Your task to perform on an android device: turn on showing notifications on the lock screen Image 0: 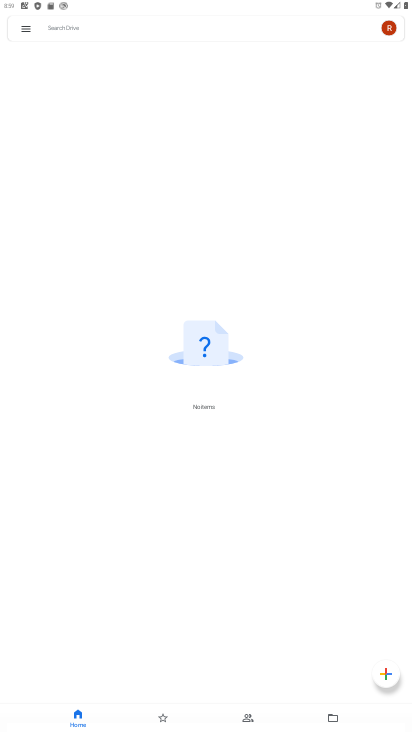
Step 0: press home button
Your task to perform on an android device: turn on showing notifications on the lock screen Image 1: 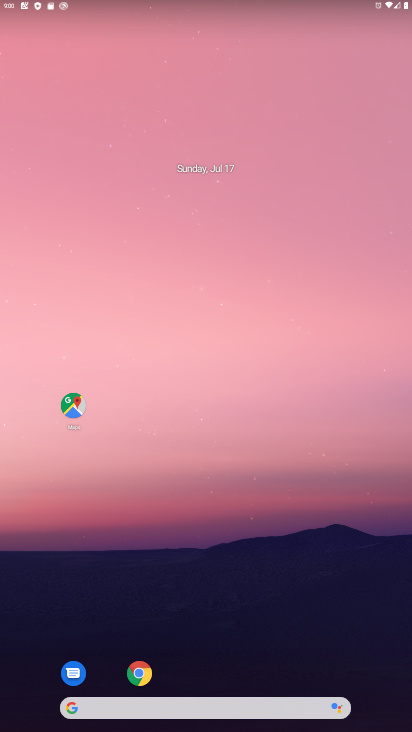
Step 1: drag from (317, 647) to (189, 167)
Your task to perform on an android device: turn on showing notifications on the lock screen Image 2: 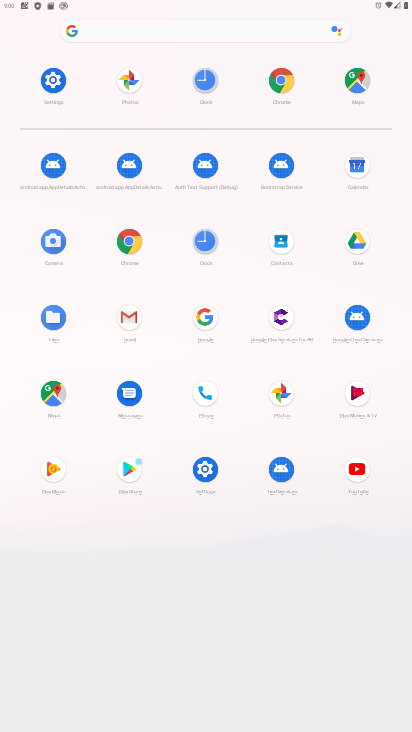
Step 2: click (53, 75)
Your task to perform on an android device: turn on showing notifications on the lock screen Image 3: 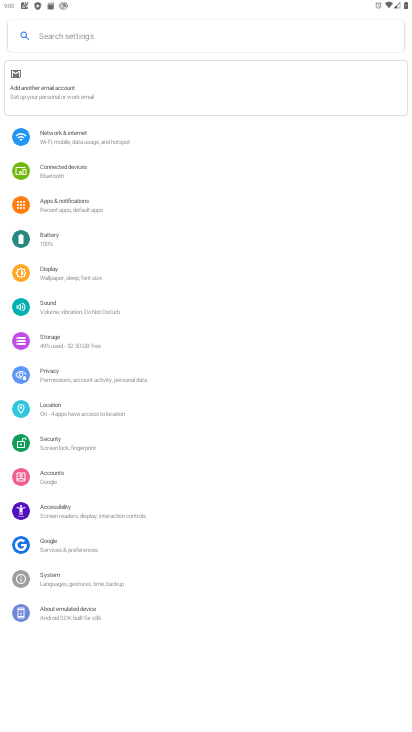
Step 3: click (89, 204)
Your task to perform on an android device: turn on showing notifications on the lock screen Image 4: 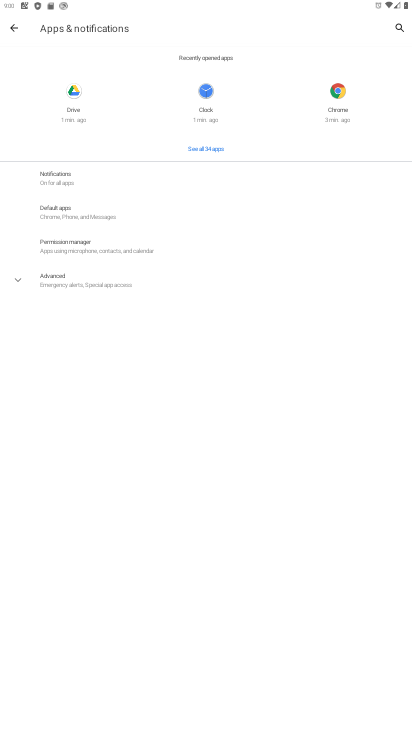
Step 4: click (61, 173)
Your task to perform on an android device: turn on showing notifications on the lock screen Image 5: 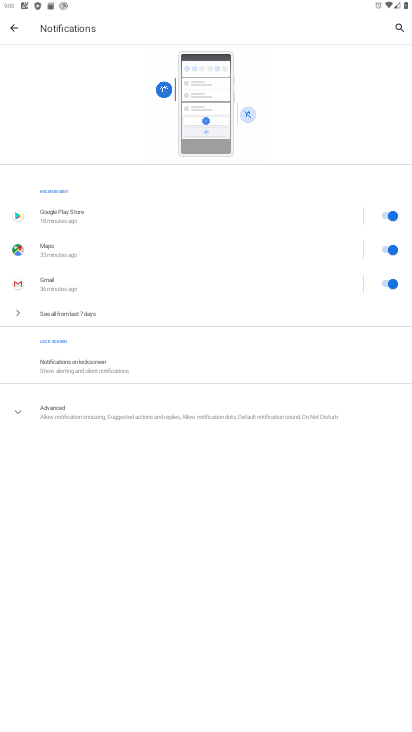
Step 5: click (77, 371)
Your task to perform on an android device: turn on showing notifications on the lock screen Image 6: 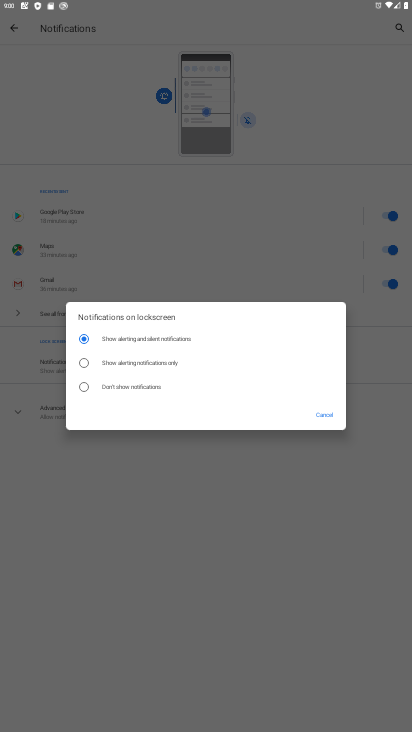
Step 6: click (106, 355)
Your task to perform on an android device: turn on showing notifications on the lock screen Image 7: 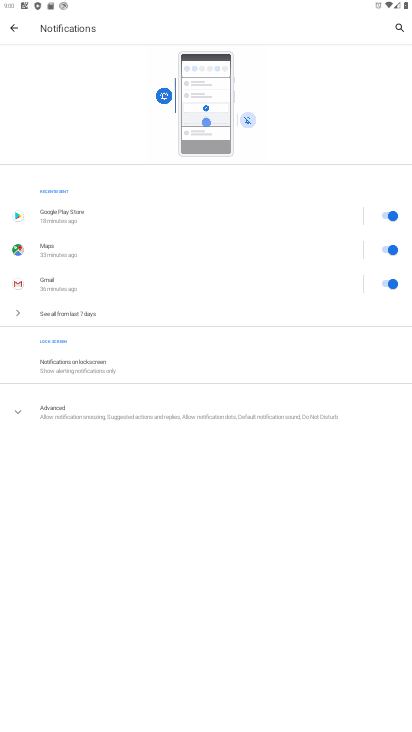
Step 7: task complete